Your task to perform on an android device: Play the last video I watched on Youtube Image 0: 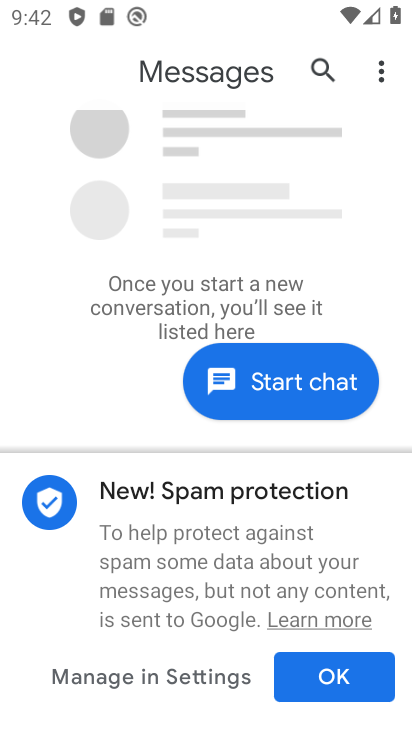
Step 0: press home button
Your task to perform on an android device: Play the last video I watched on Youtube Image 1: 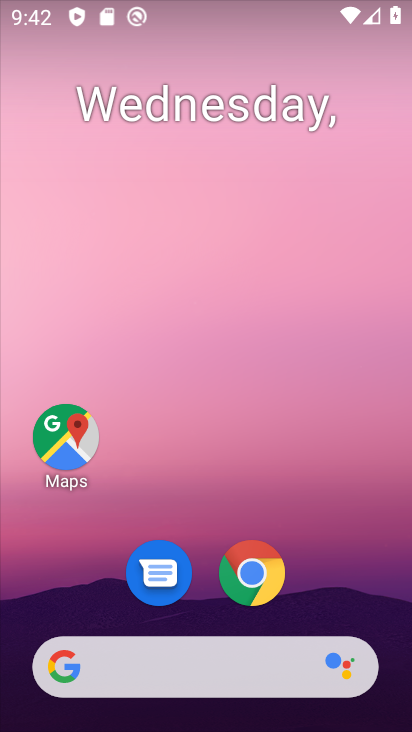
Step 1: drag from (377, 601) to (368, 113)
Your task to perform on an android device: Play the last video I watched on Youtube Image 2: 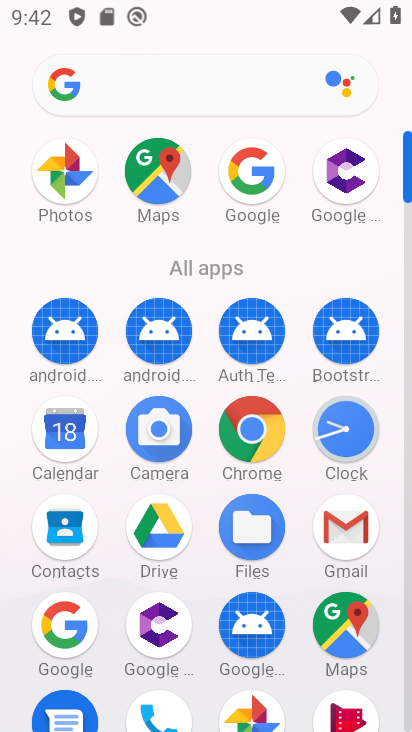
Step 2: drag from (384, 685) to (383, 432)
Your task to perform on an android device: Play the last video I watched on Youtube Image 3: 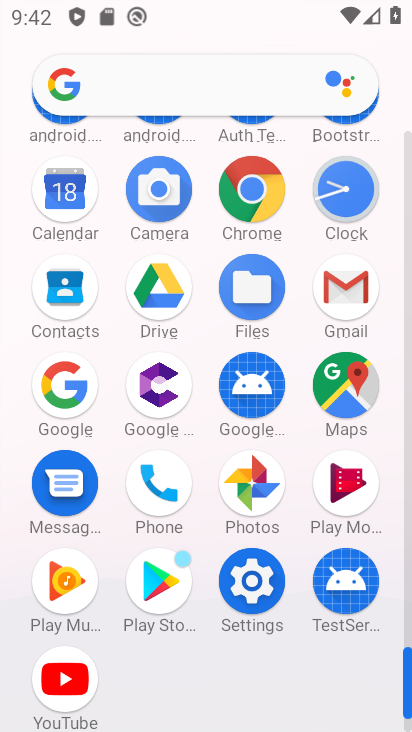
Step 3: click (64, 695)
Your task to perform on an android device: Play the last video I watched on Youtube Image 4: 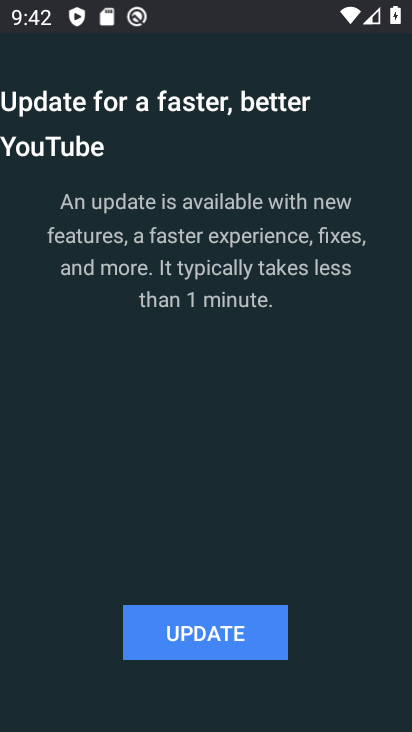
Step 4: click (228, 647)
Your task to perform on an android device: Play the last video I watched on Youtube Image 5: 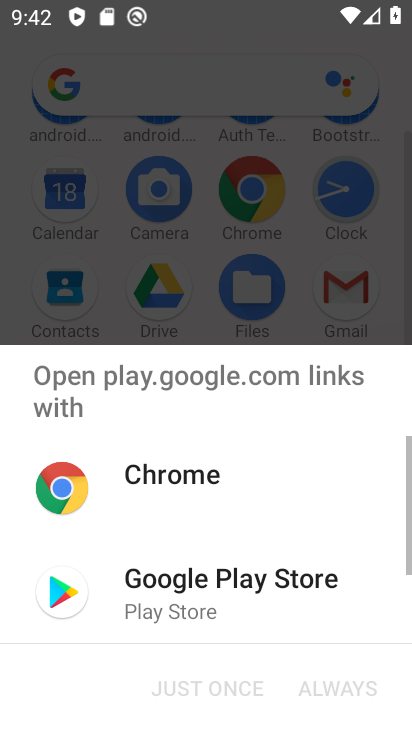
Step 5: click (215, 578)
Your task to perform on an android device: Play the last video I watched on Youtube Image 6: 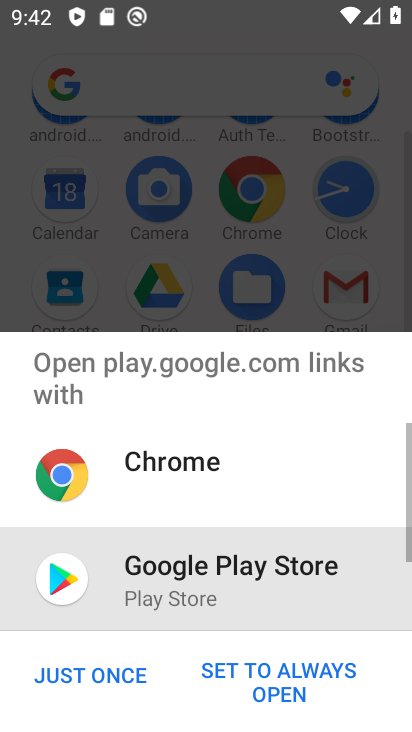
Step 6: click (127, 683)
Your task to perform on an android device: Play the last video I watched on Youtube Image 7: 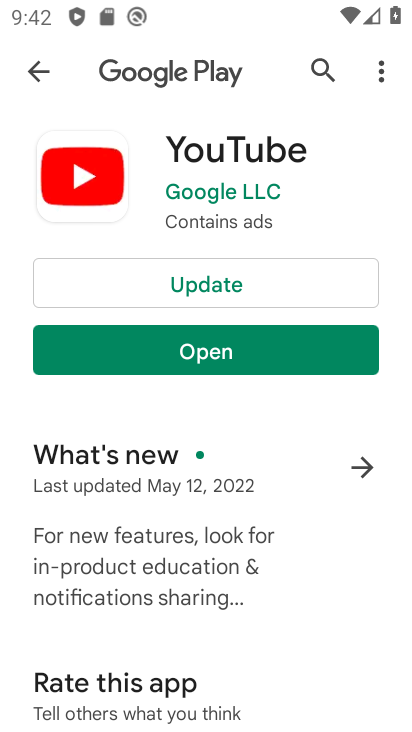
Step 7: click (281, 290)
Your task to perform on an android device: Play the last video I watched on Youtube Image 8: 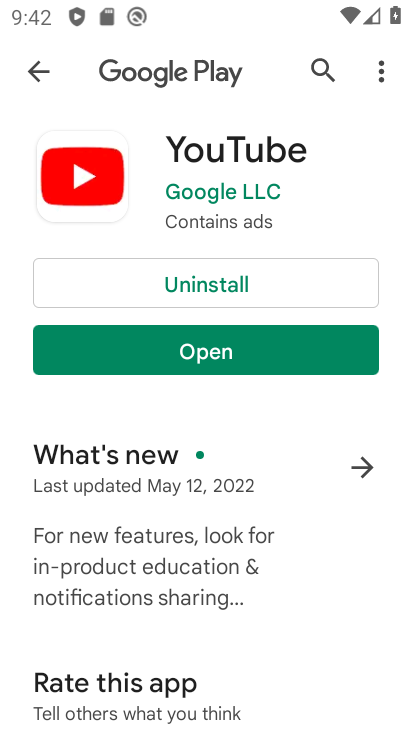
Step 8: click (280, 362)
Your task to perform on an android device: Play the last video I watched on Youtube Image 9: 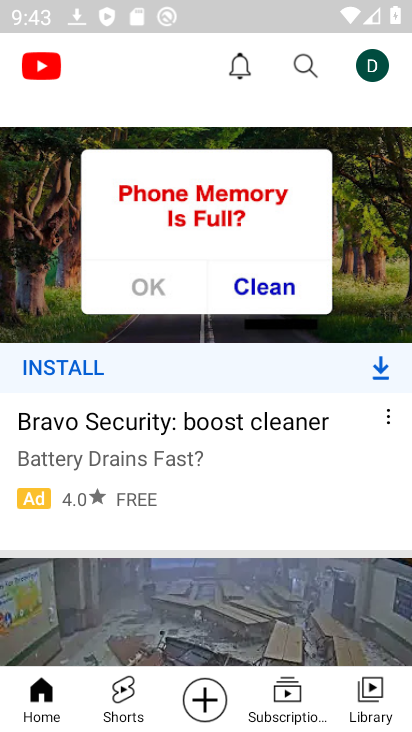
Step 9: click (373, 701)
Your task to perform on an android device: Play the last video I watched on Youtube Image 10: 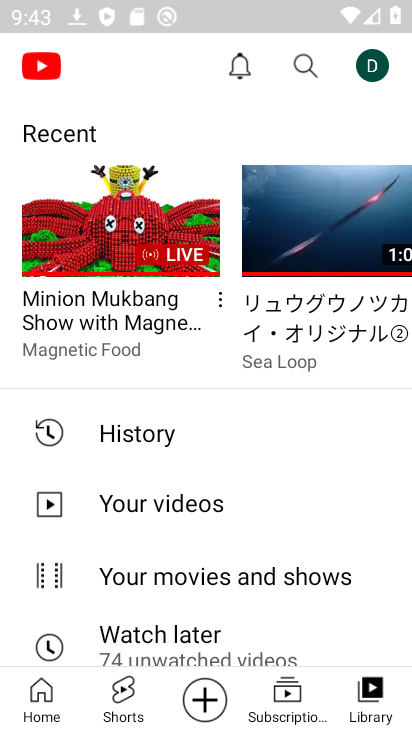
Step 10: click (82, 219)
Your task to perform on an android device: Play the last video I watched on Youtube Image 11: 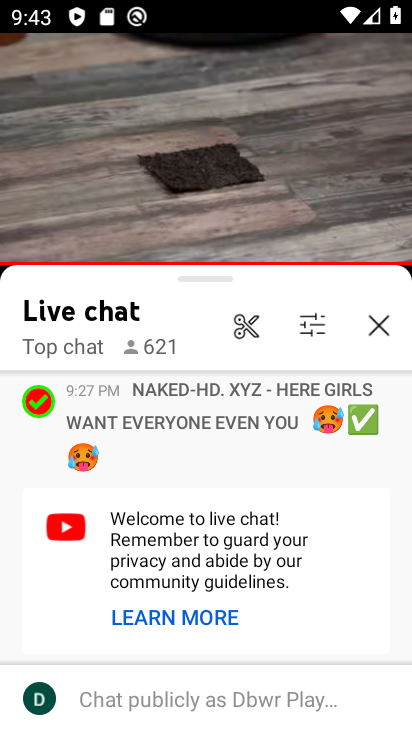
Step 11: task complete